Your task to perform on an android device: turn on the 24-hour format for clock Image 0: 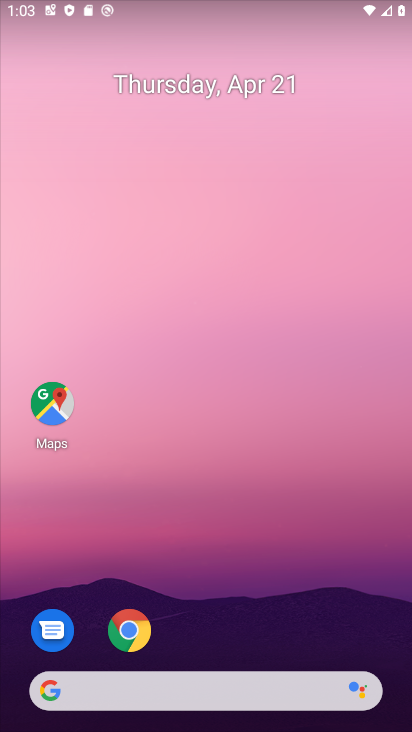
Step 0: drag from (333, 602) to (157, 176)
Your task to perform on an android device: turn on the 24-hour format for clock Image 1: 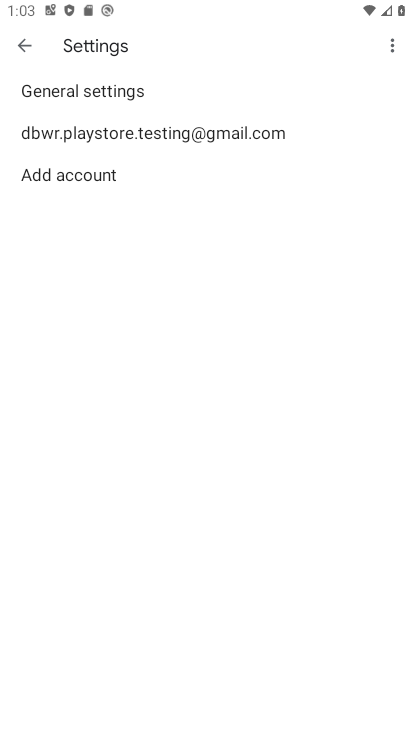
Step 1: press home button
Your task to perform on an android device: turn on the 24-hour format for clock Image 2: 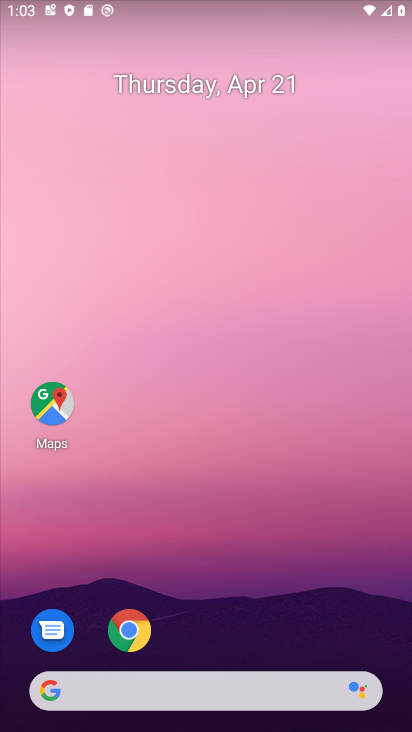
Step 2: drag from (303, 626) to (208, 147)
Your task to perform on an android device: turn on the 24-hour format for clock Image 3: 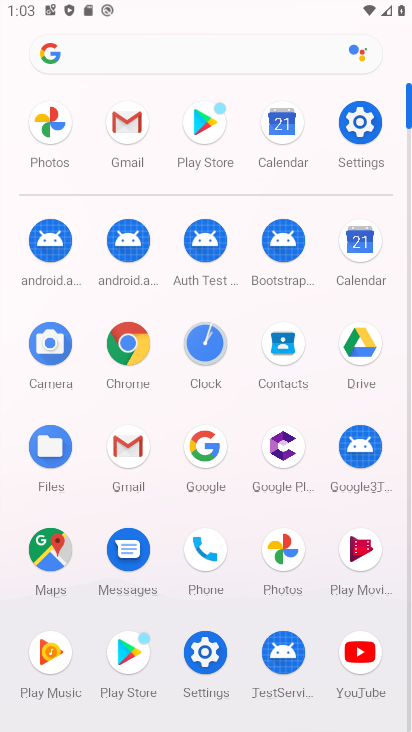
Step 3: click (358, 131)
Your task to perform on an android device: turn on the 24-hour format for clock Image 4: 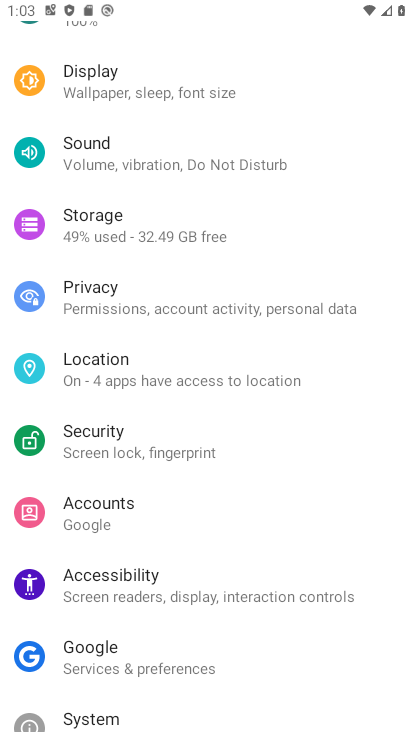
Step 4: press home button
Your task to perform on an android device: turn on the 24-hour format for clock Image 5: 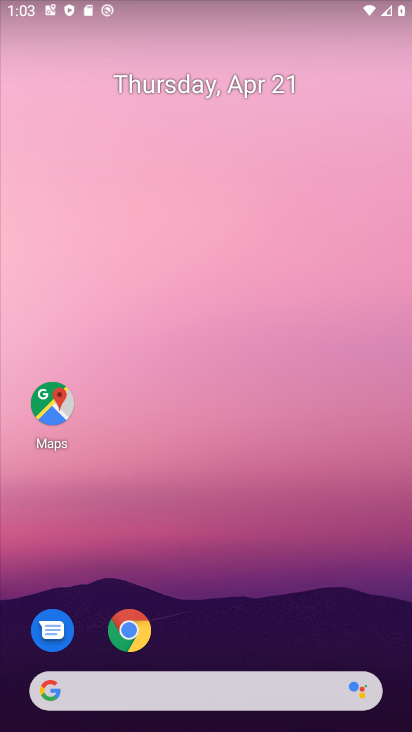
Step 5: drag from (256, 608) to (234, 162)
Your task to perform on an android device: turn on the 24-hour format for clock Image 6: 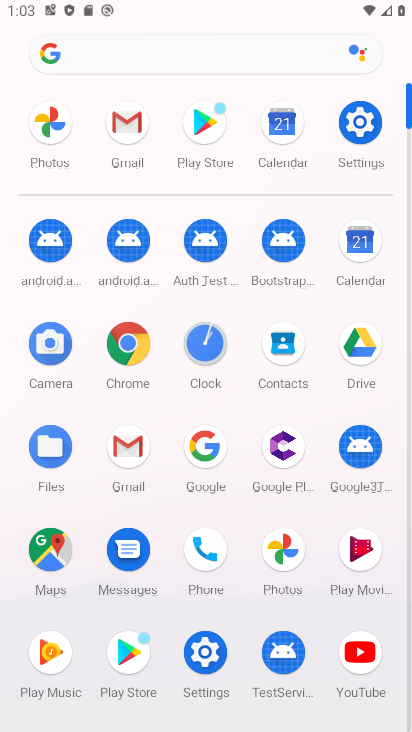
Step 6: click (215, 375)
Your task to perform on an android device: turn on the 24-hour format for clock Image 7: 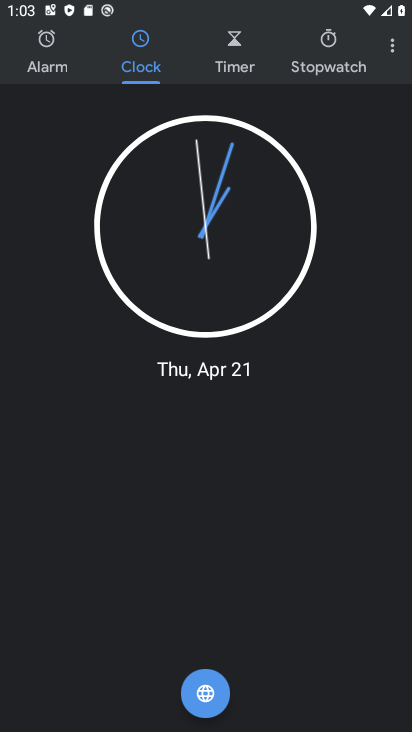
Step 7: click (396, 40)
Your task to perform on an android device: turn on the 24-hour format for clock Image 8: 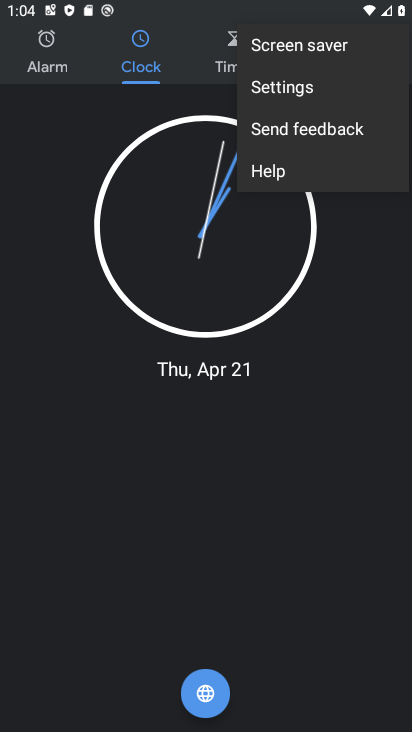
Step 8: click (324, 76)
Your task to perform on an android device: turn on the 24-hour format for clock Image 9: 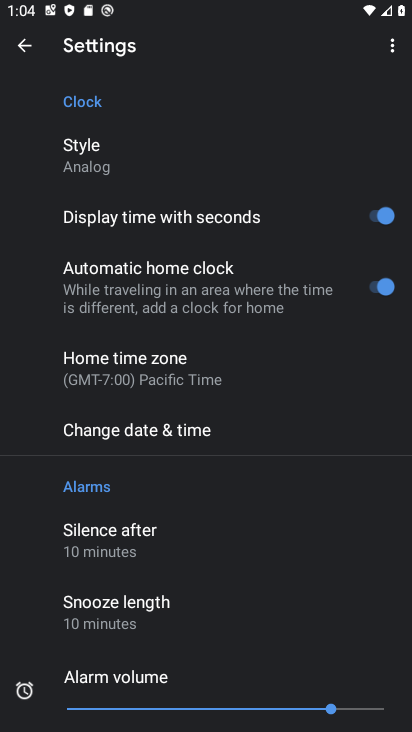
Step 9: click (217, 435)
Your task to perform on an android device: turn on the 24-hour format for clock Image 10: 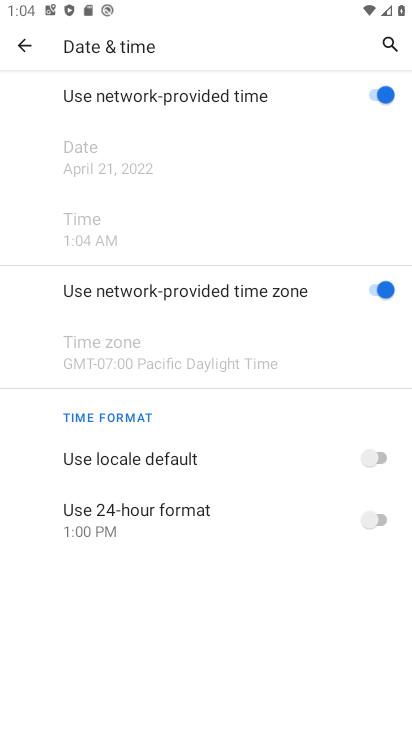
Step 10: click (211, 534)
Your task to perform on an android device: turn on the 24-hour format for clock Image 11: 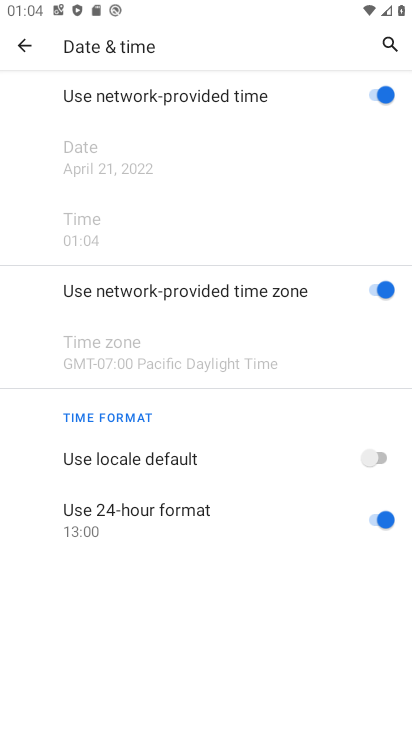
Step 11: task complete